Your task to perform on an android device: Go to accessibility settings Image 0: 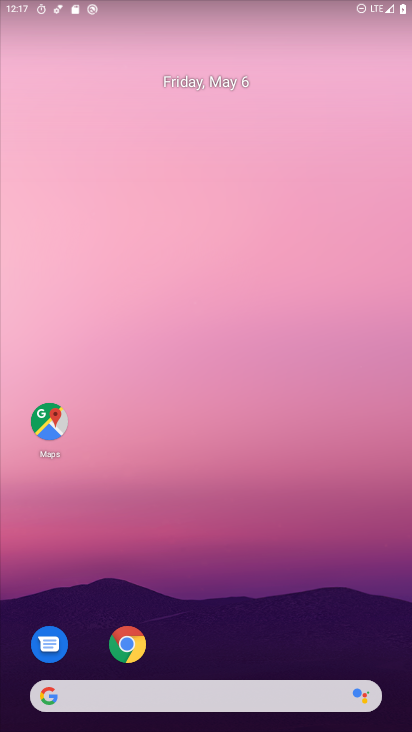
Step 0: drag from (357, 577) to (323, 200)
Your task to perform on an android device: Go to accessibility settings Image 1: 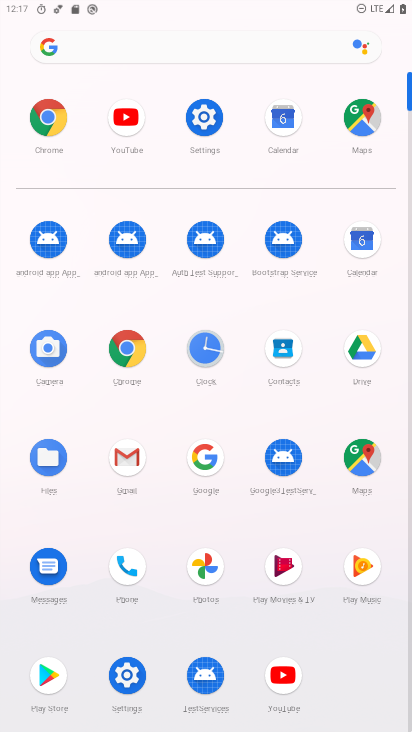
Step 1: click (123, 672)
Your task to perform on an android device: Go to accessibility settings Image 2: 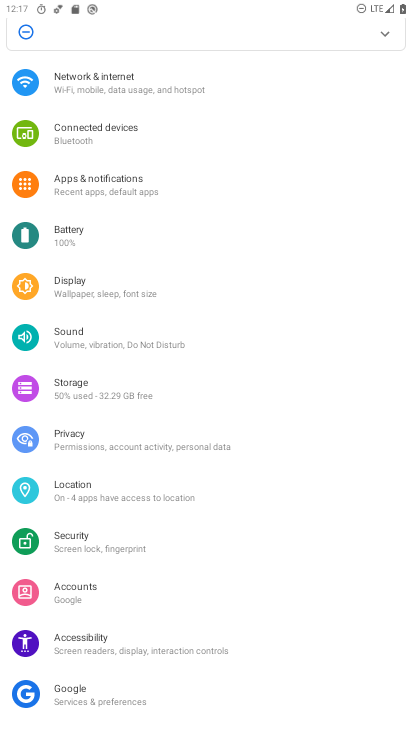
Step 2: click (117, 635)
Your task to perform on an android device: Go to accessibility settings Image 3: 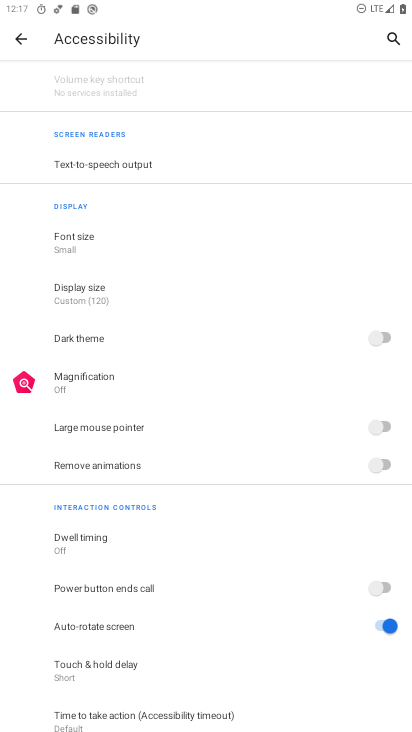
Step 3: task complete